Your task to perform on an android device: Toggle the flashlight Image 0: 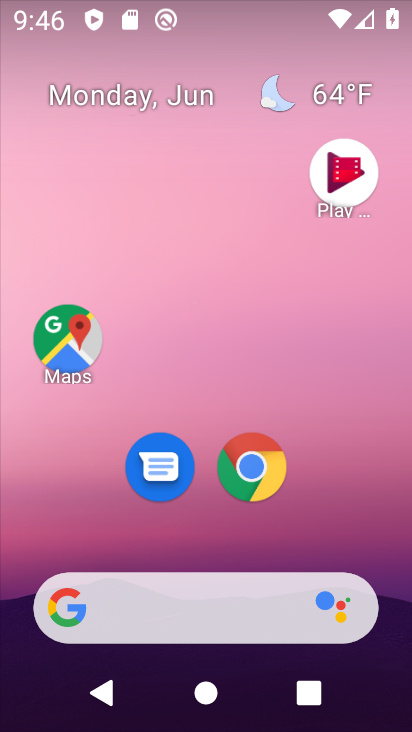
Step 0: drag from (223, 184) to (205, 580)
Your task to perform on an android device: Toggle the flashlight Image 1: 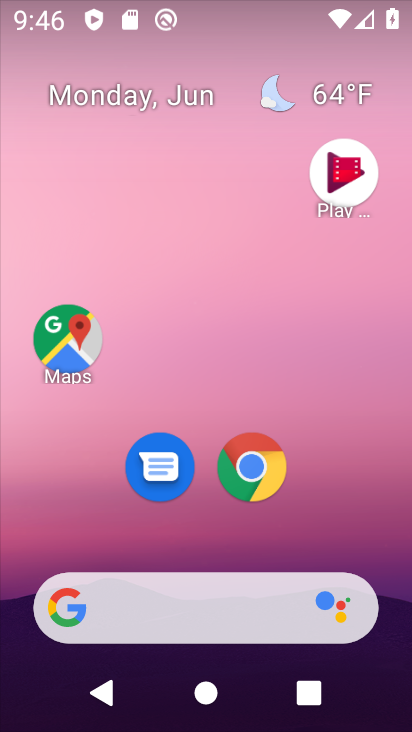
Step 1: task complete